Your task to perform on an android device: set the timer Image 0: 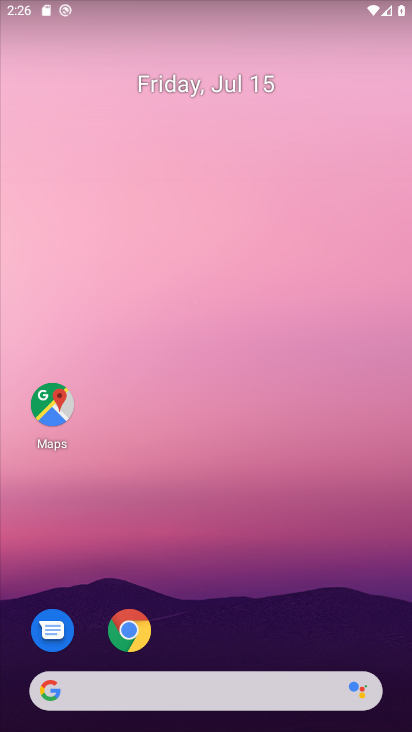
Step 0: click (309, 113)
Your task to perform on an android device: set the timer Image 1: 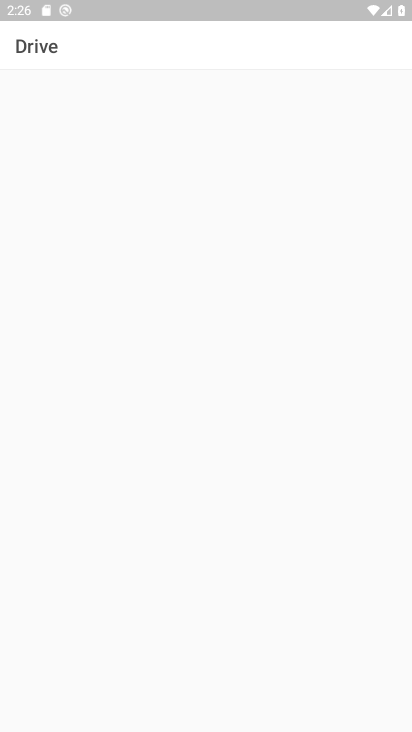
Step 1: press home button
Your task to perform on an android device: set the timer Image 2: 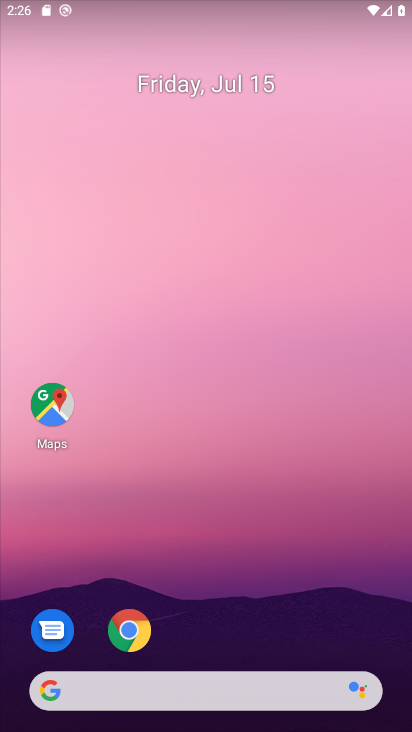
Step 2: drag from (244, 578) to (153, 3)
Your task to perform on an android device: set the timer Image 3: 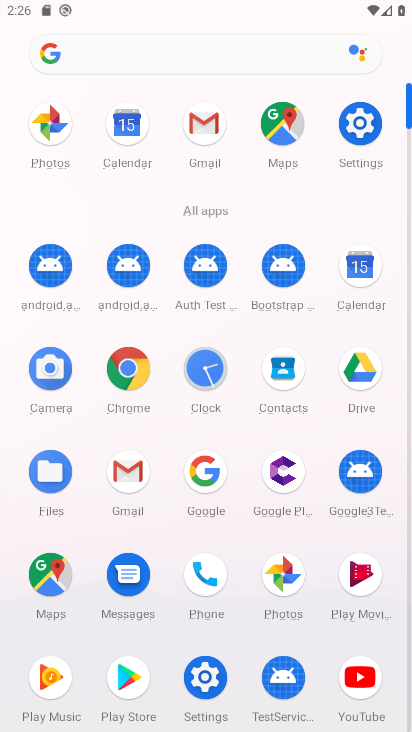
Step 3: click (206, 368)
Your task to perform on an android device: set the timer Image 4: 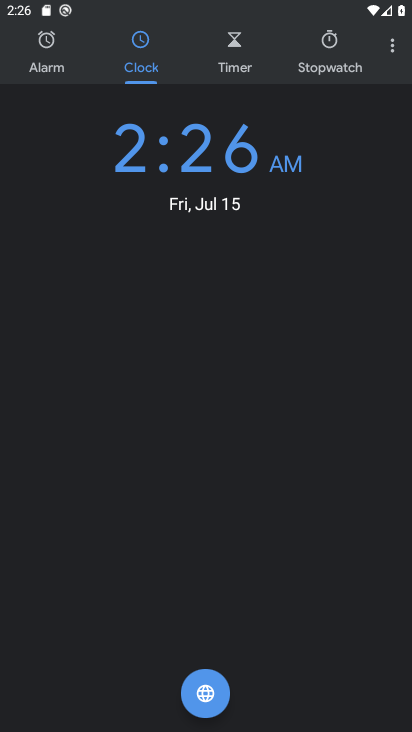
Step 4: click (220, 67)
Your task to perform on an android device: set the timer Image 5: 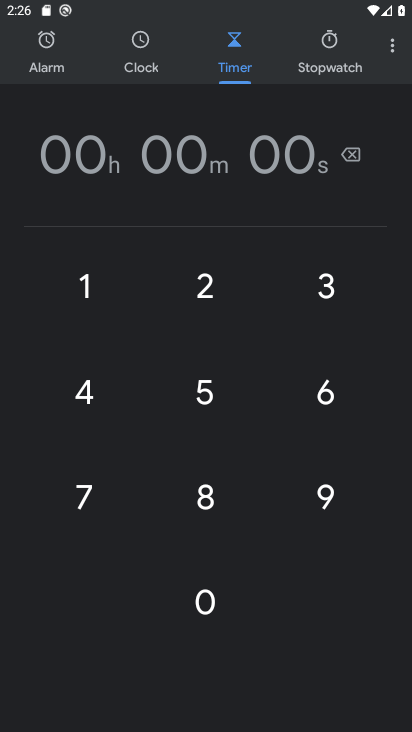
Step 5: click (212, 304)
Your task to perform on an android device: set the timer Image 6: 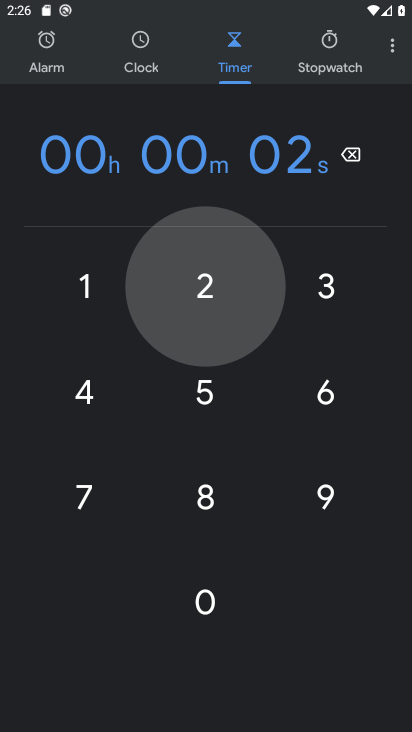
Step 6: click (194, 398)
Your task to perform on an android device: set the timer Image 7: 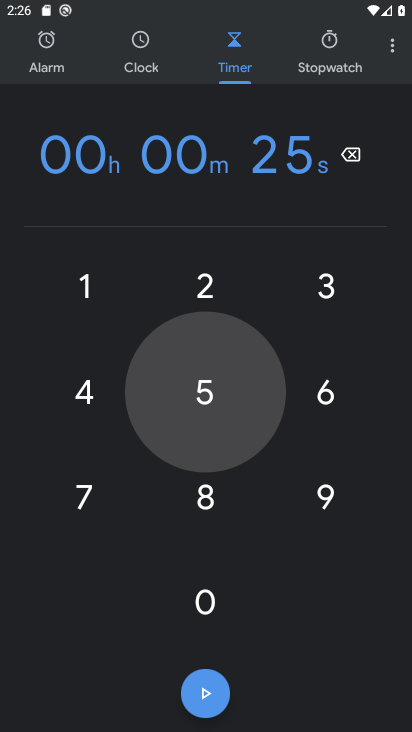
Step 7: click (187, 295)
Your task to perform on an android device: set the timer Image 8: 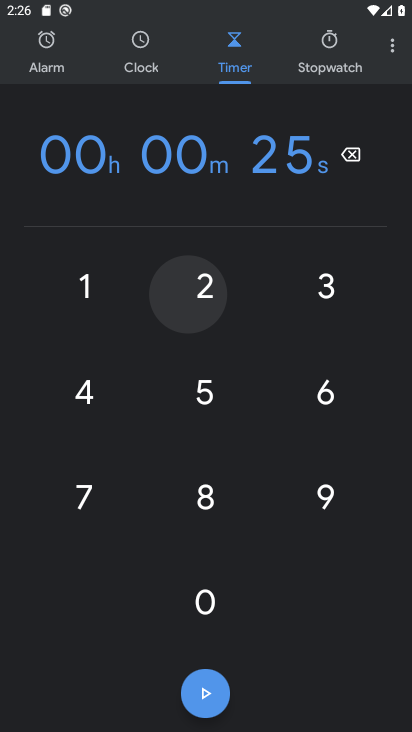
Step 8: click (205, 388)
Your task to perform on an android device: set the timer Image 9: 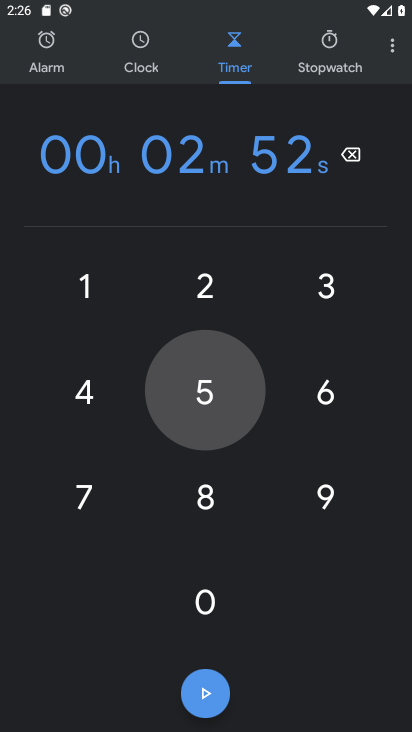
Step 9: click (206, 300)
Your task to perform on an android device: set the timer Image 10: 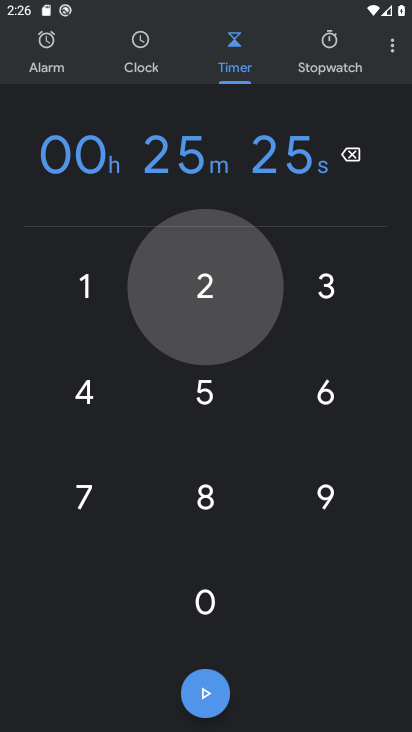
Step 10: click (212, 407)
Your task to perform on an android device: set the timer Image 11: 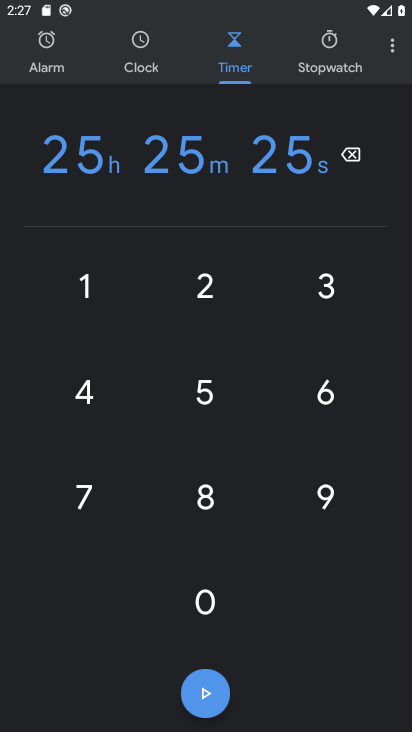
Step 11: click (212, 697)
Your task to perform on an android device: set the timer Image 12: 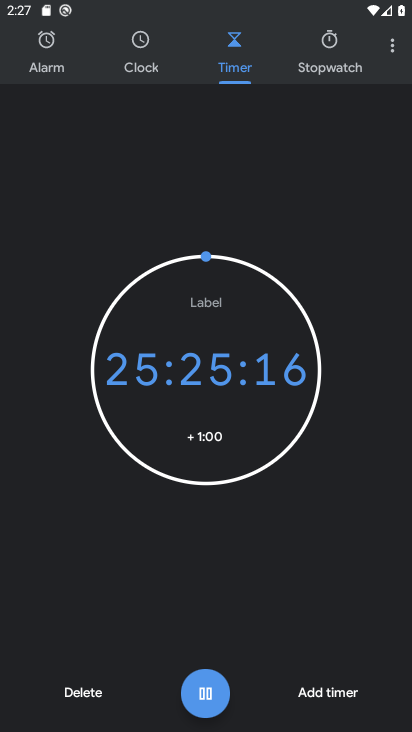
Step 12: task complete